Your task to perform on an android device: add a contact in the contacts app Image 0: 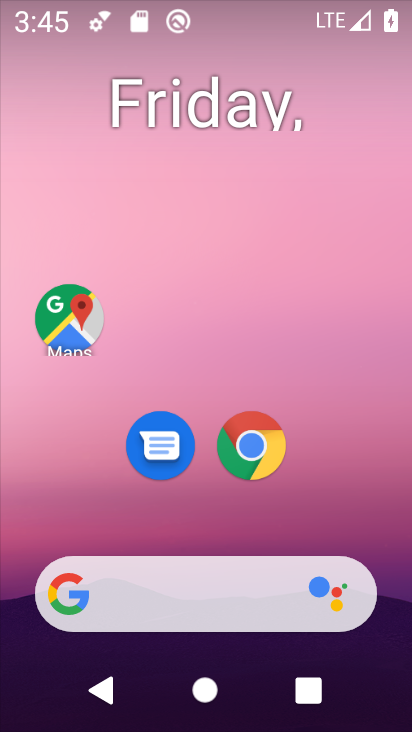
Step 0: drag from (405, 569) to (319, 120)
Your task to perform on an android device: add a contact in the contacts app Image 1: 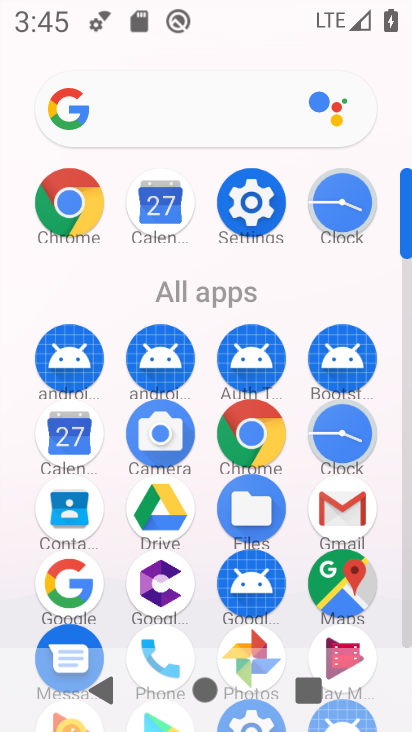
Step 1: click (77, 514)
Your task to perform on an android device: add a contact in the contacts app Image 2: 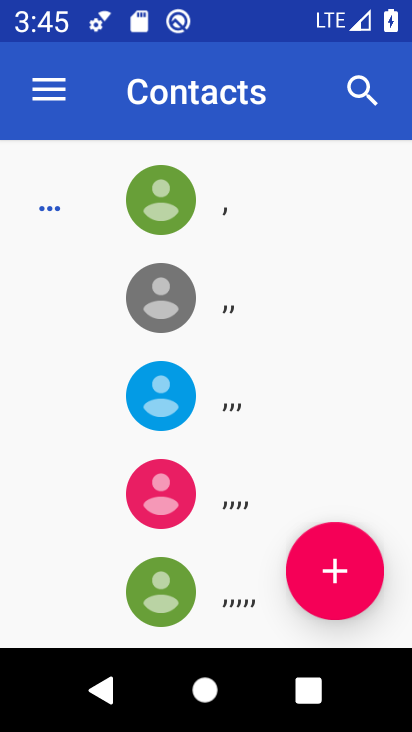
Step 2: click (358, 558)
Your task to perform on an android device: add a contact in the contacts app Image 3: 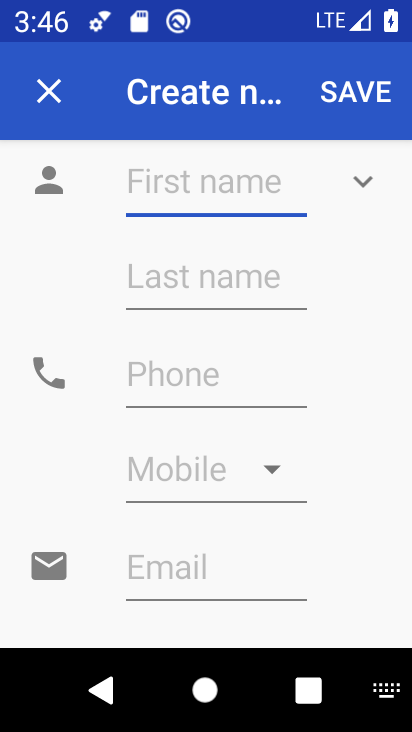
Step 3: click (193, 187)
Your task to perform on an android device: add a contact in the contacts app Image 4: 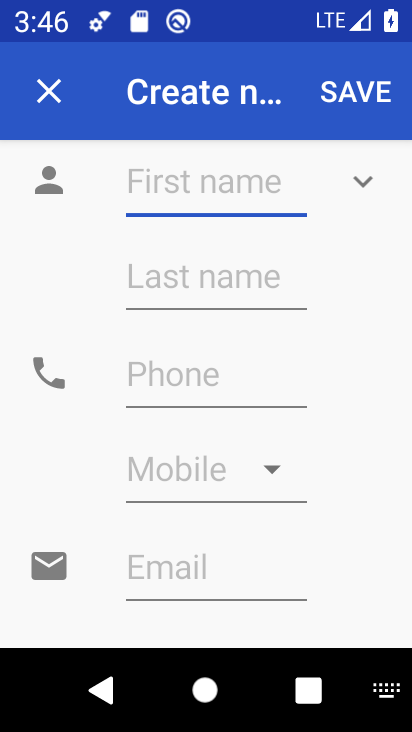
Step 4: type "vcjgvjgvgj"
Your task to perform on an android device: add a contact in the contacts app Image 5: 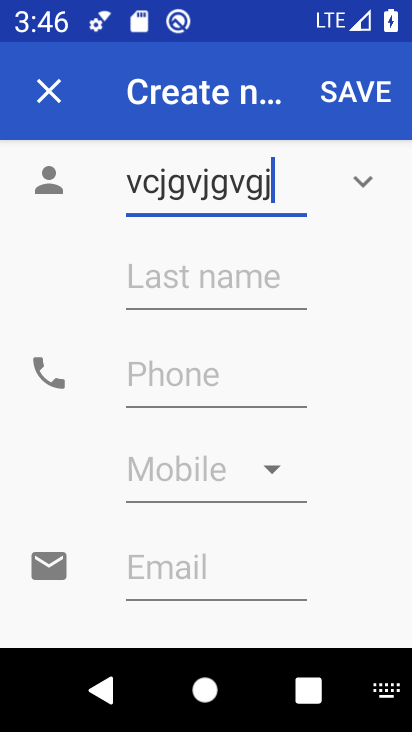
Step 5: click (230, 376)
Your task to perform on an android device: add a contact in the contacts app Image 6: 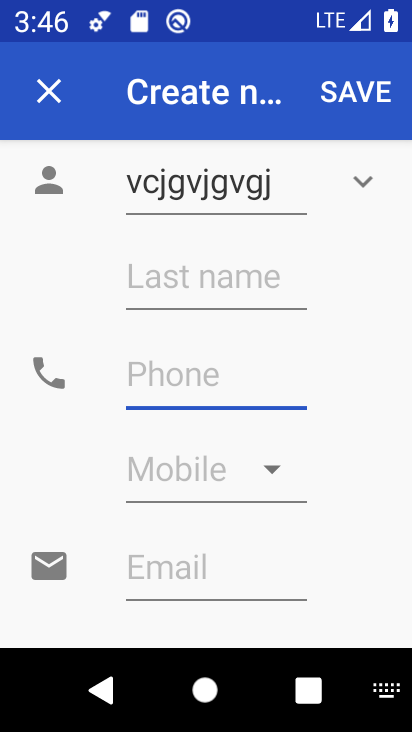
Step 6: type "6769798"
Your task to perform on an android device: add a contact in the contacts app Image 7: 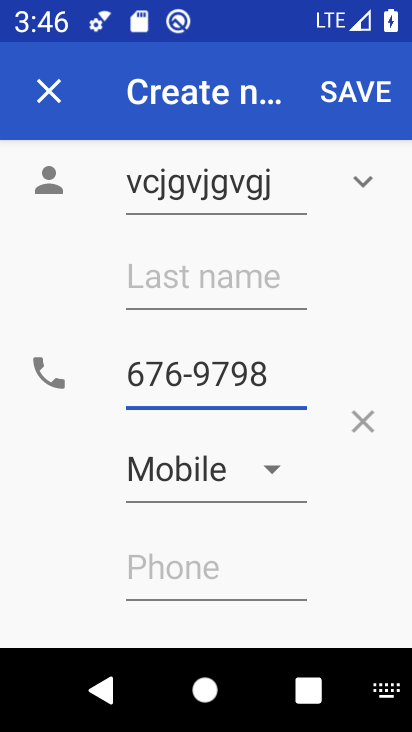
Step 7: click (345, 82)
Your task to perform on an android device: add a contact in the contacts app Image 8: 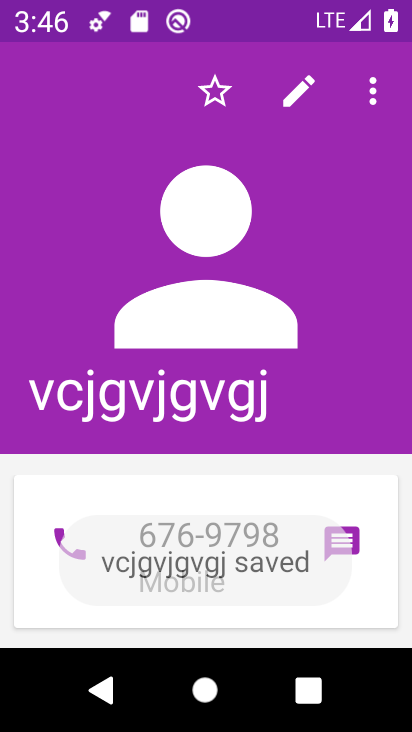
Step 8: task complete